Your task to perform on an android device: Go to network settings Image 0: 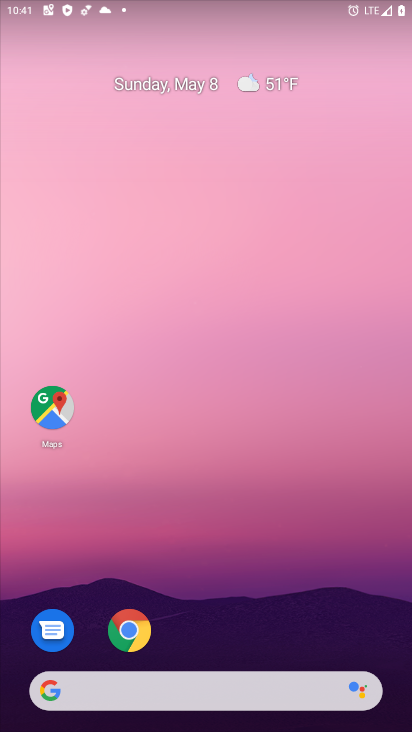
Step 0: drag from (322, 516) to (283, 35)
Your task to perform on an android device: Go to network settings Image 1: 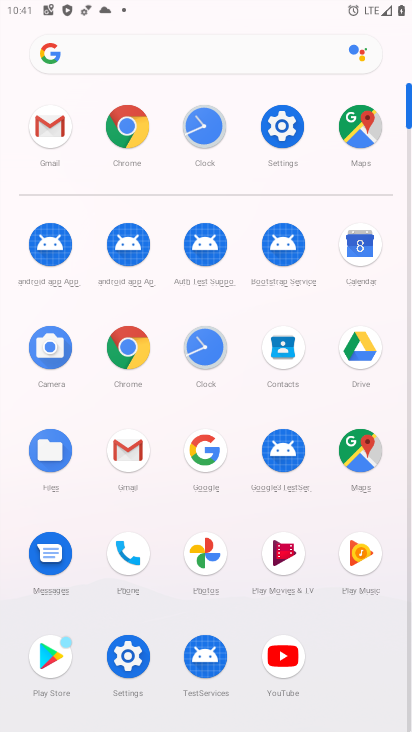
Step 1: click (275, 133)
Your task to perform on an android device: Go to network settings Image 2: 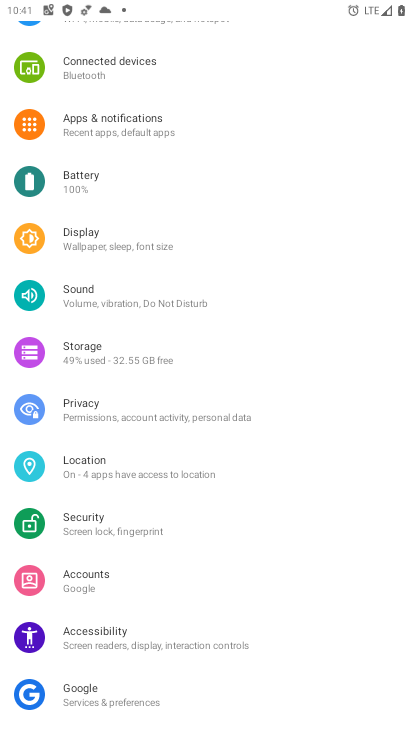
Step 2: drag from (166, 111) to (241, 639)
Your task to perform on an android device: Go to network settings Image 3: 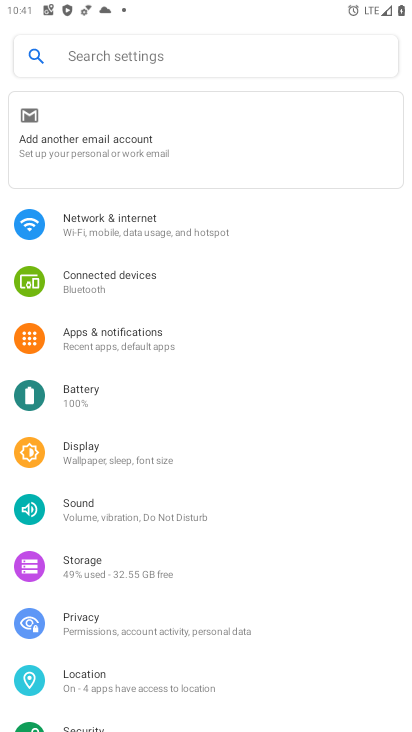
Step 3: click (122, 250)
Your task to perform on an android device: Go to network settings Image 4: 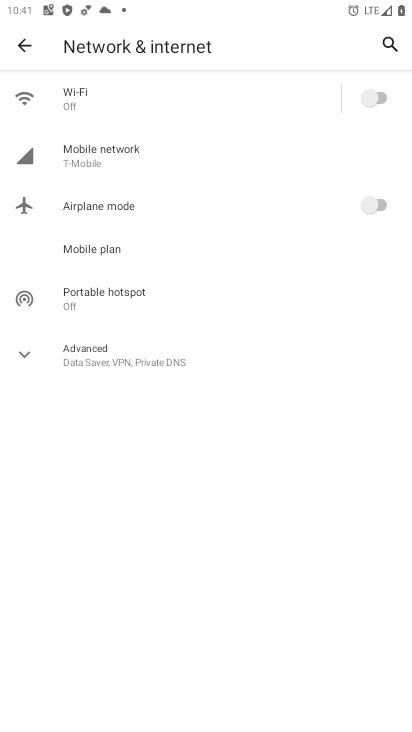
Step 4: task complete